Your task to perform on an android device: Open settings on Google Maps Image 0: 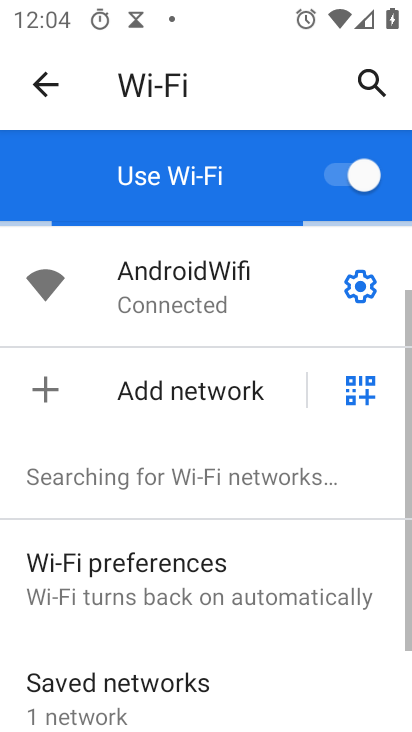
Step 0: press home button
Your task to perform on an android device: Open settings on Google Maps Image 1: 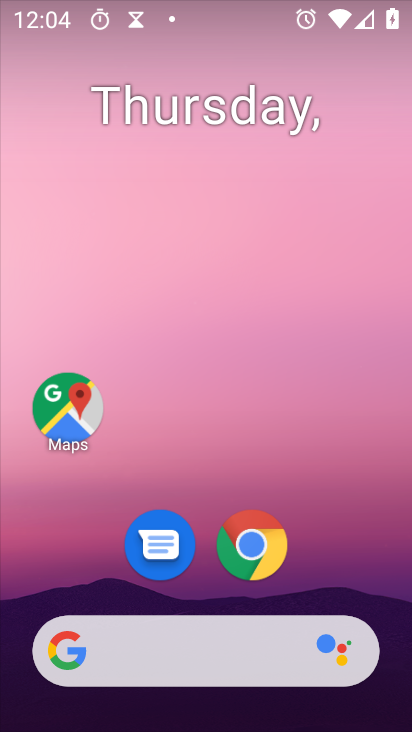
Step 1: click (69, 418)
Your task to perform on an android device: Open settings on Google Maps Image 2: 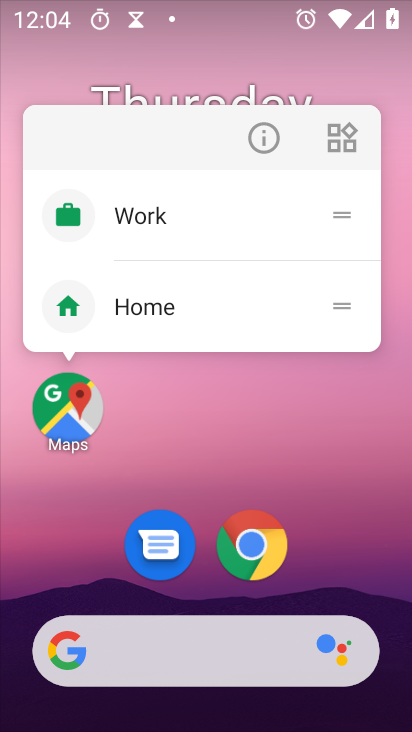
Step 2: click (70, 417)
Your task to perform on an android device: Open settings on Google Maps Image 3: 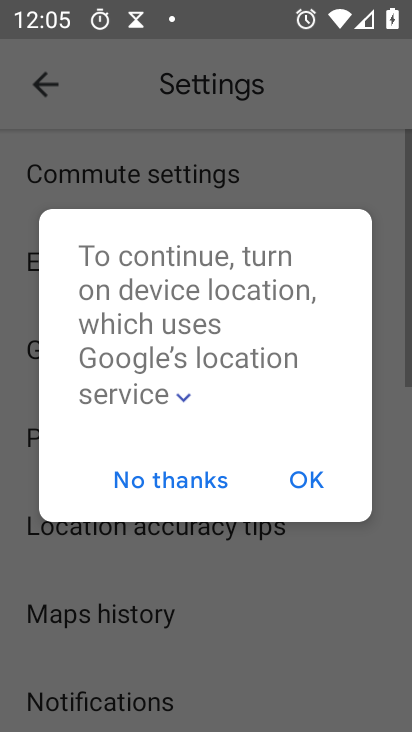
Step 3: click (311, 475)
Your task to perform on an android device: Open settings on Google Maps Image 4: 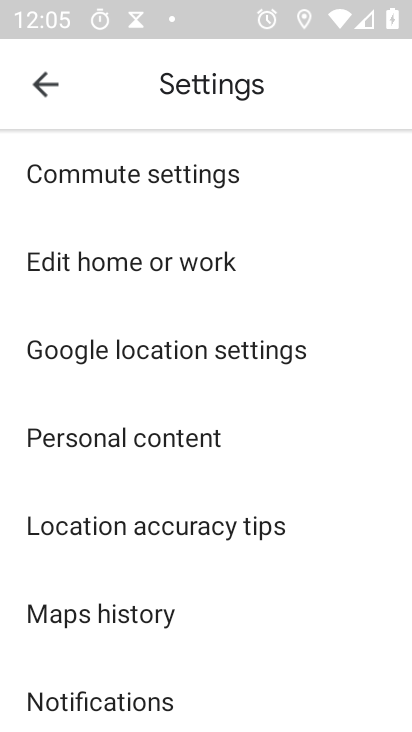
Step 4: task complete